Your task to perform on an android device: move a message to another label in the gmail app Image 0: 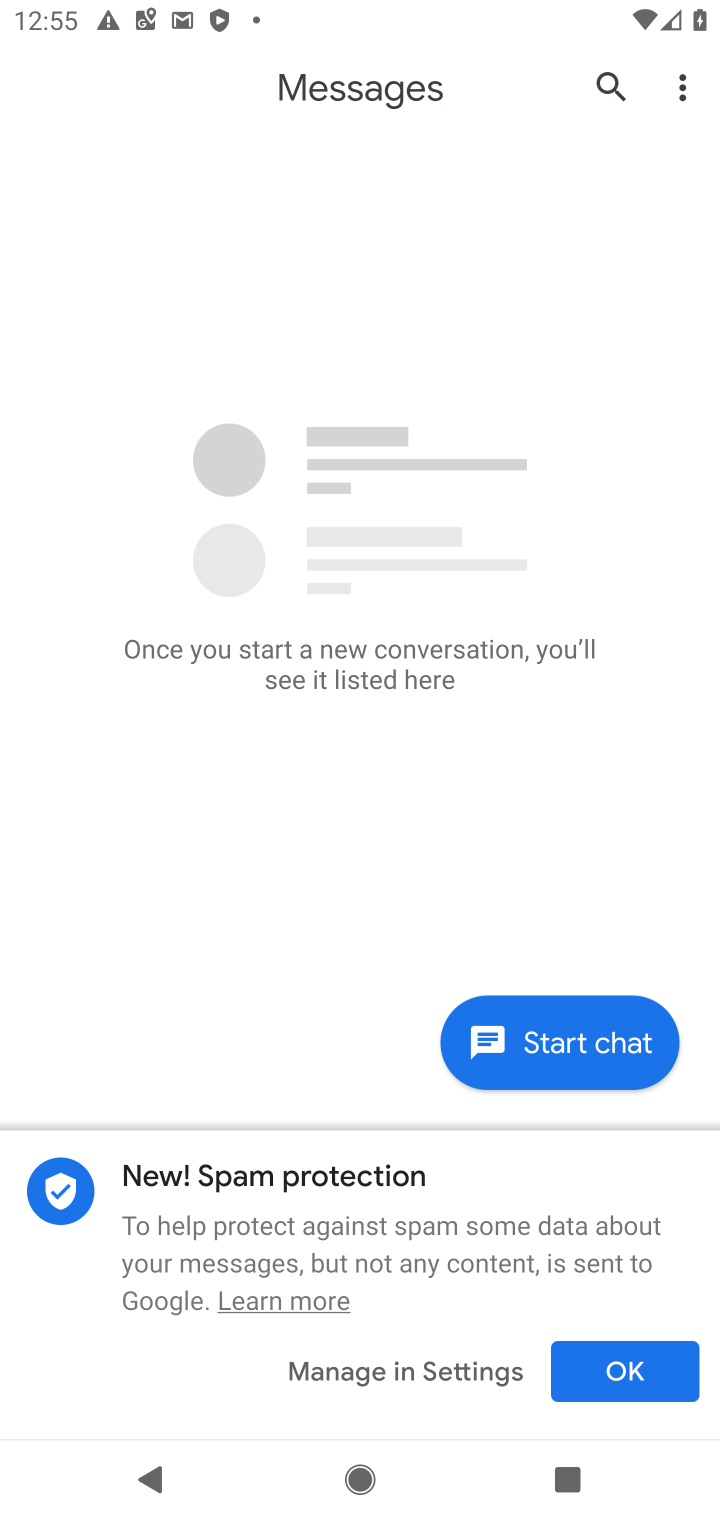
Step 0: press home button
Your task to perform on an android device: move a message to another label in the gmail app Image 1: 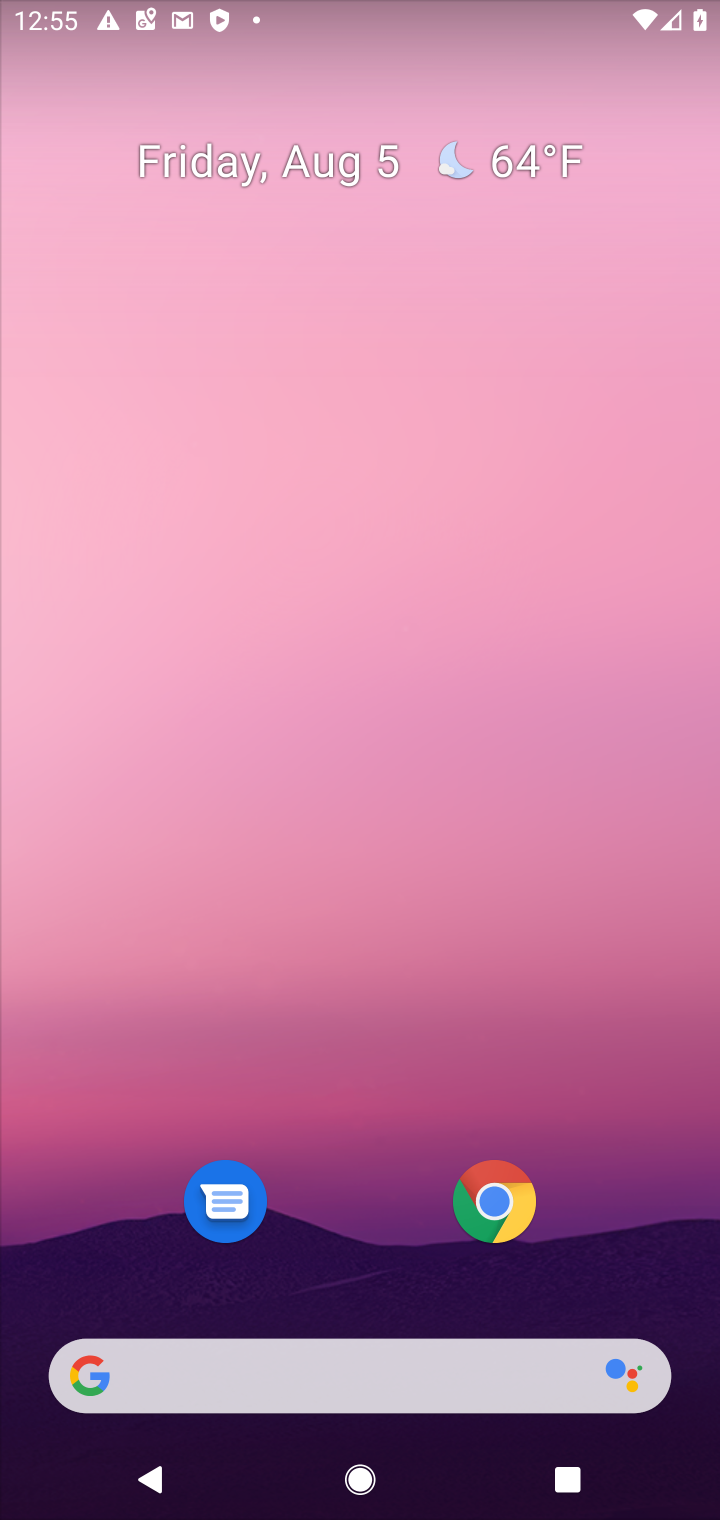
Step 1: drag from (399, 1238) to (373, 558)
Your task to perform on an android device: move a message to another label in the gmail app Image 2: 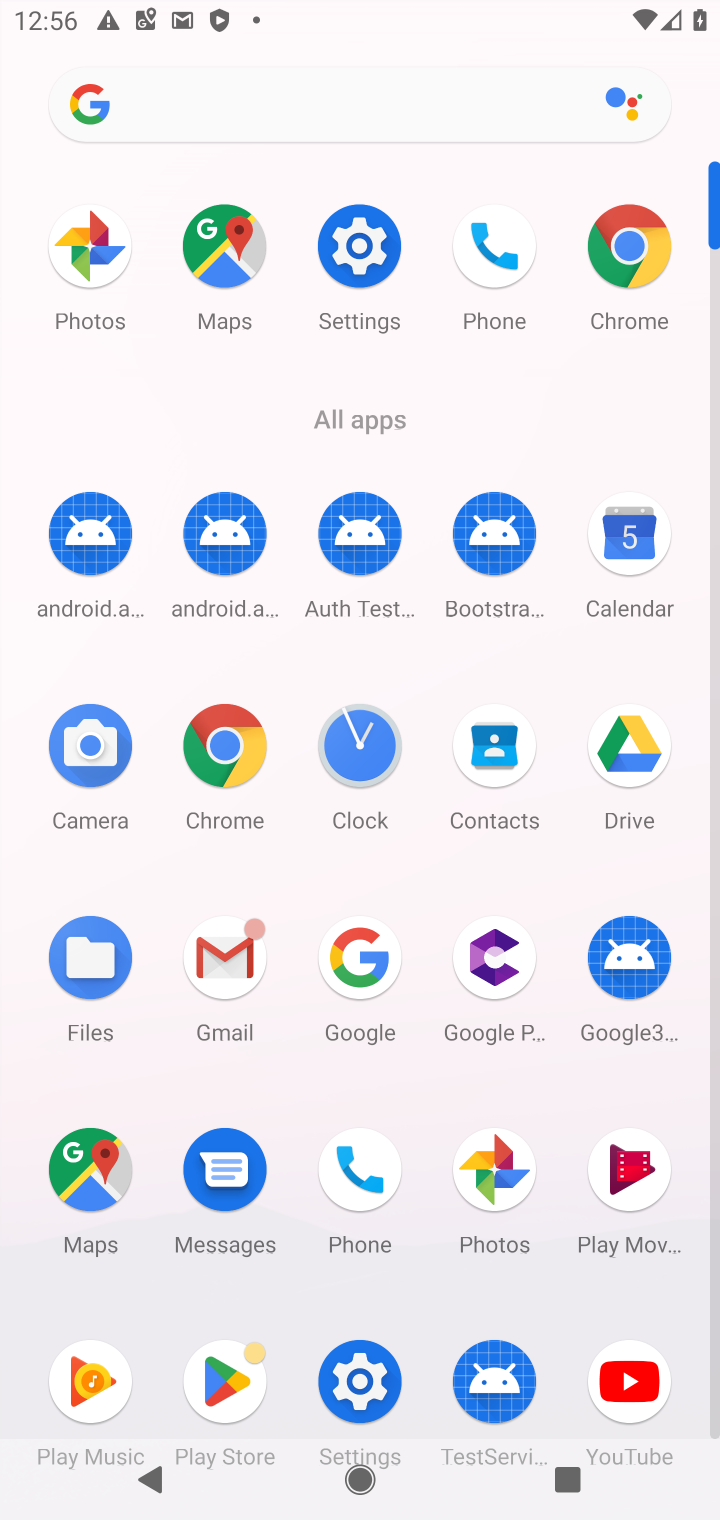
Step 2: click (226, 931)
Your task to perform on an android device: move a message to another label in the gmail app Image 3: 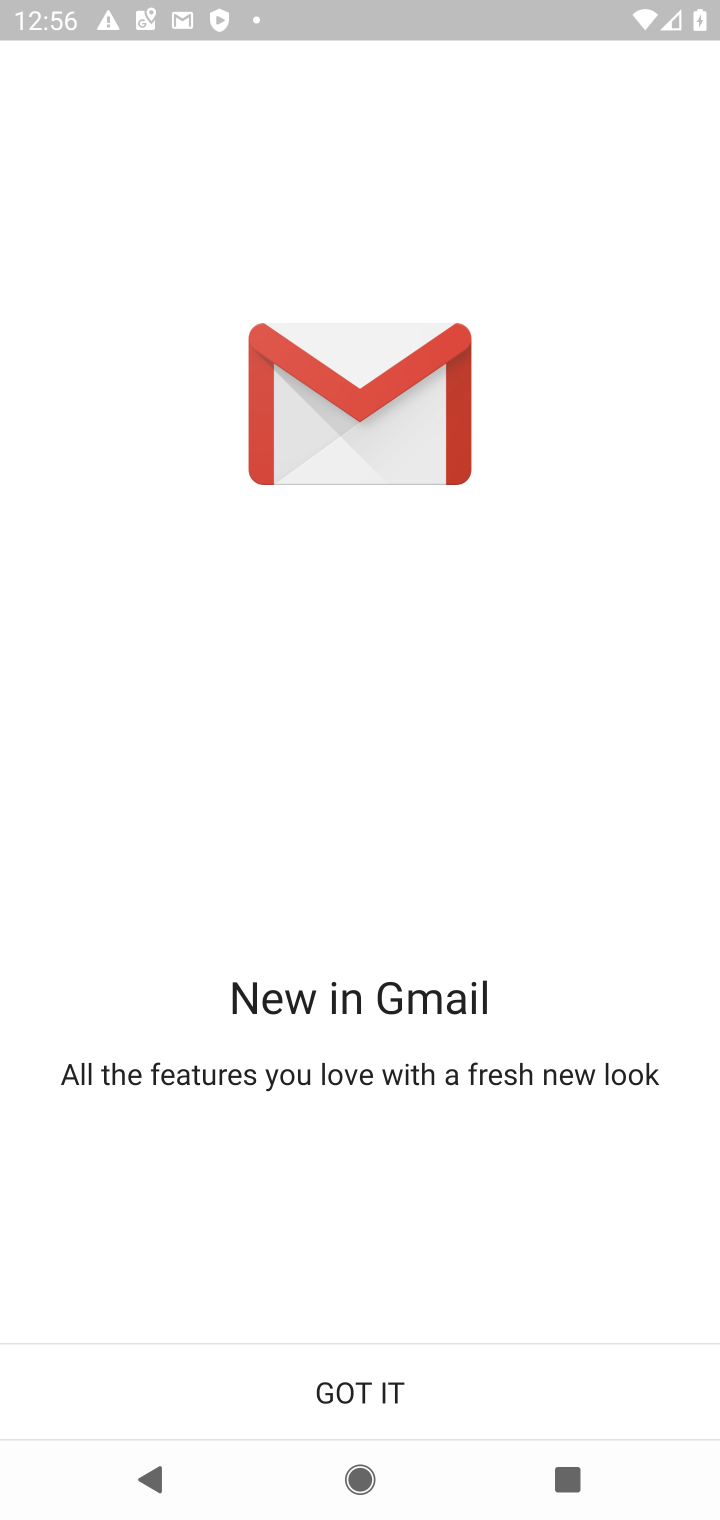
Step 3: click (439, 1374)
Your task to perform on an android device: move a message to another label in the gmail app Image 4: 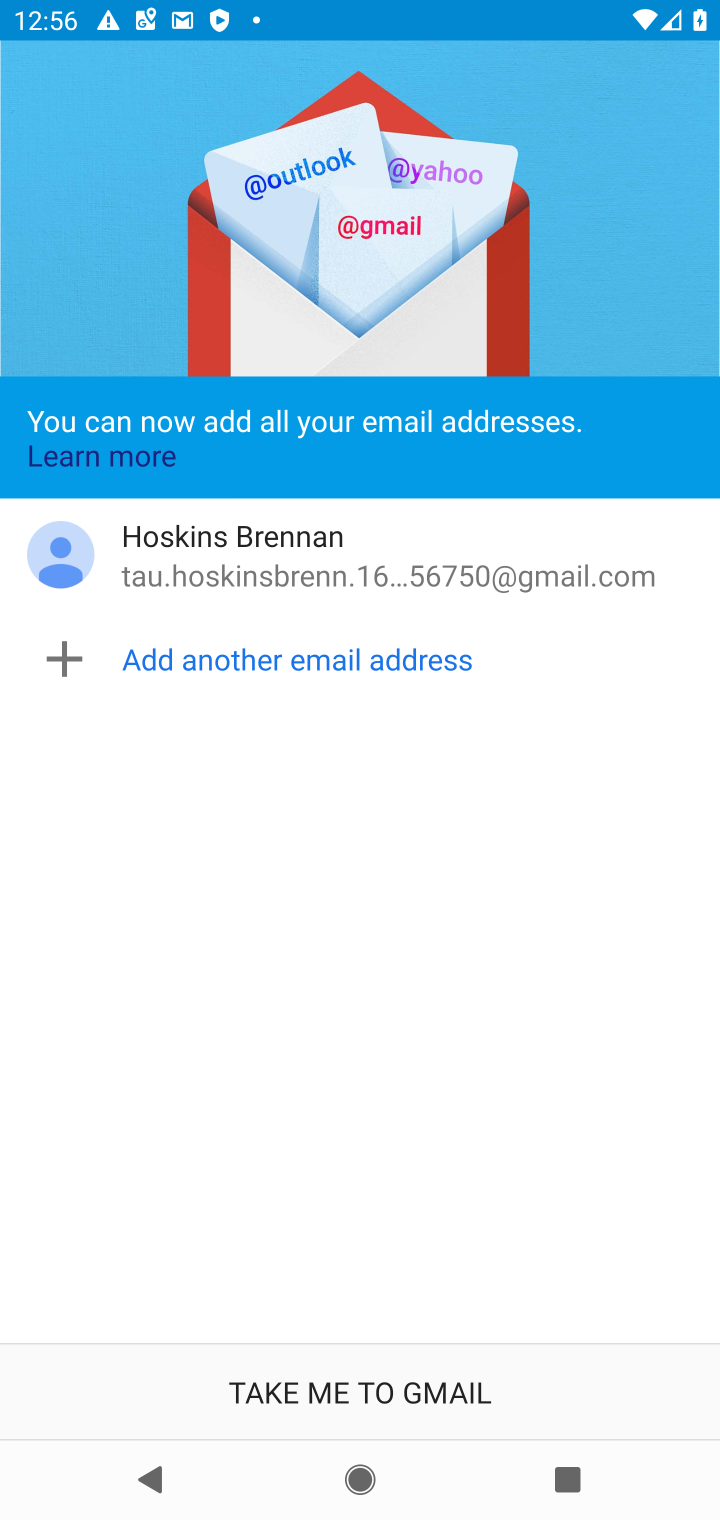
Step 4: click (475, 1383)
Your task to perform on an android device: move a message to another label in the gmail app Image 5: 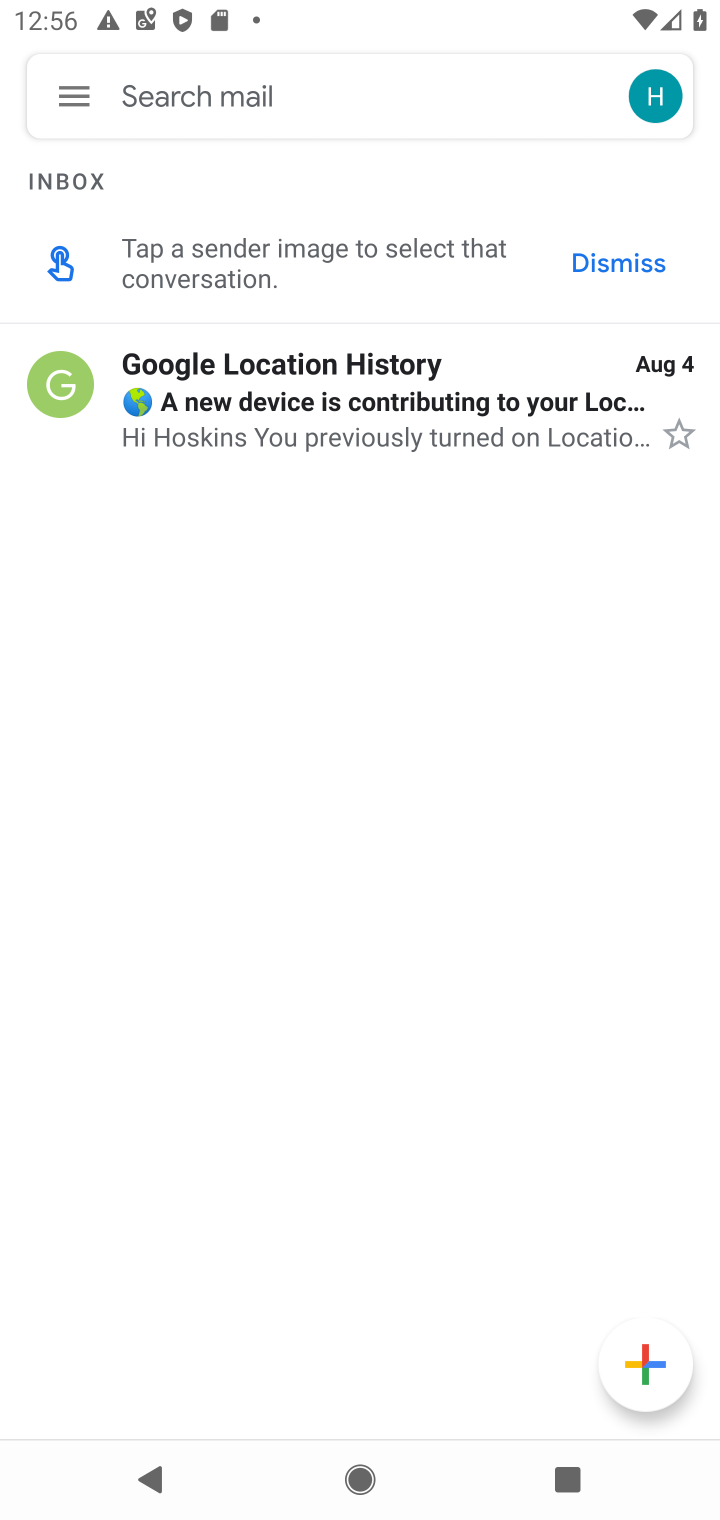
Step 5: click (74, 105)
Your task to perform on an android device: move a message to another label in the gmail app Image 6: 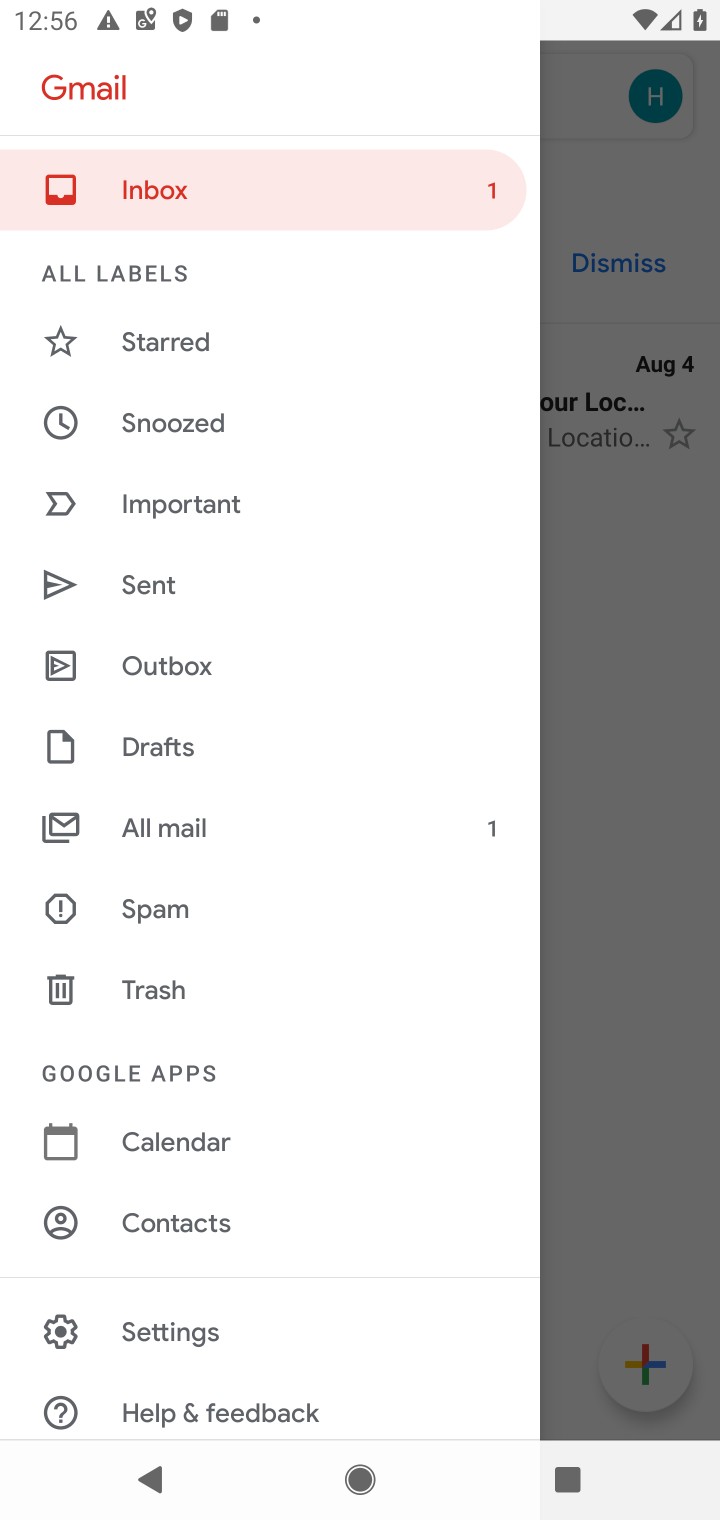
Step 6: click (220, 827)
Your task to perform on an android device: move a message to another label in the gmail app Image 7: 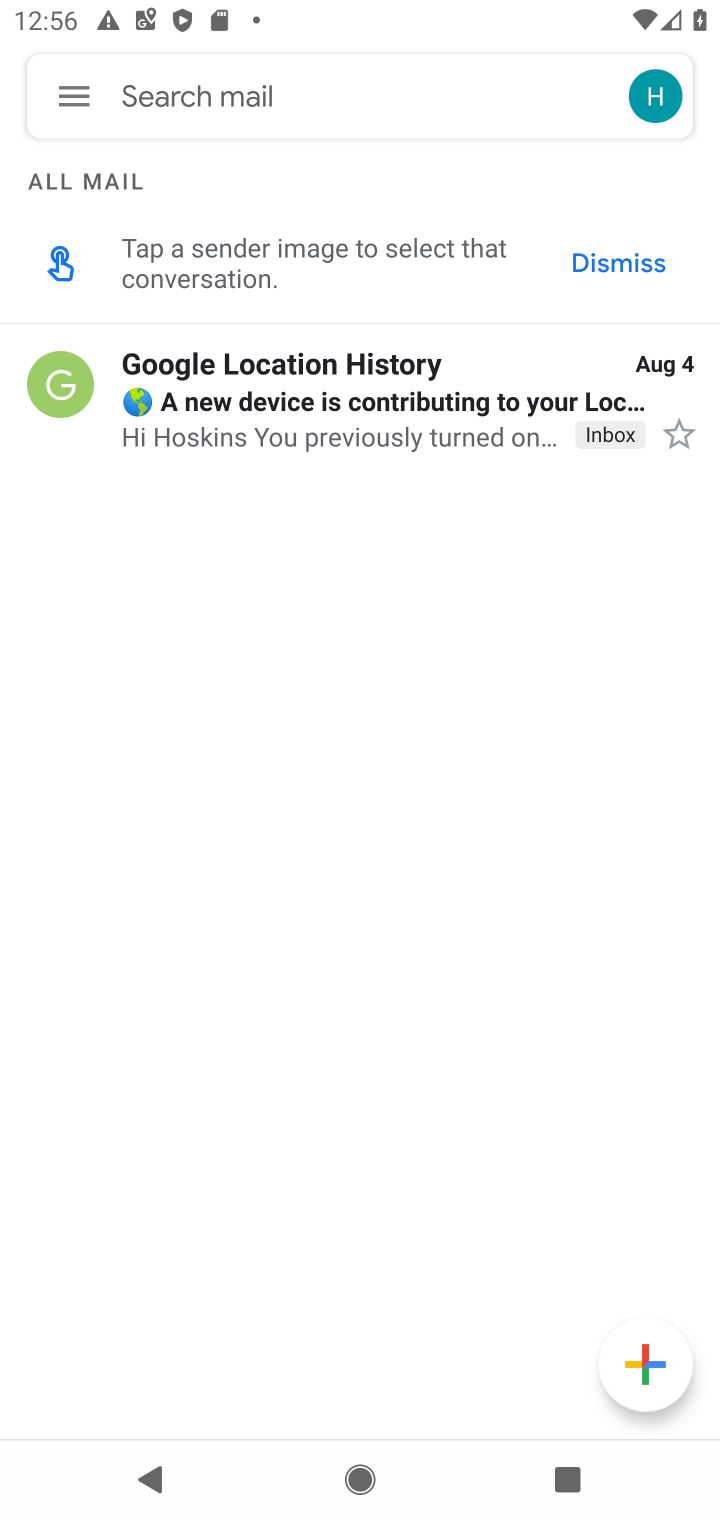
Step 7: click (447, 381)
Your task to perform on an android device: move a message to another label in the gmail app Image 8: 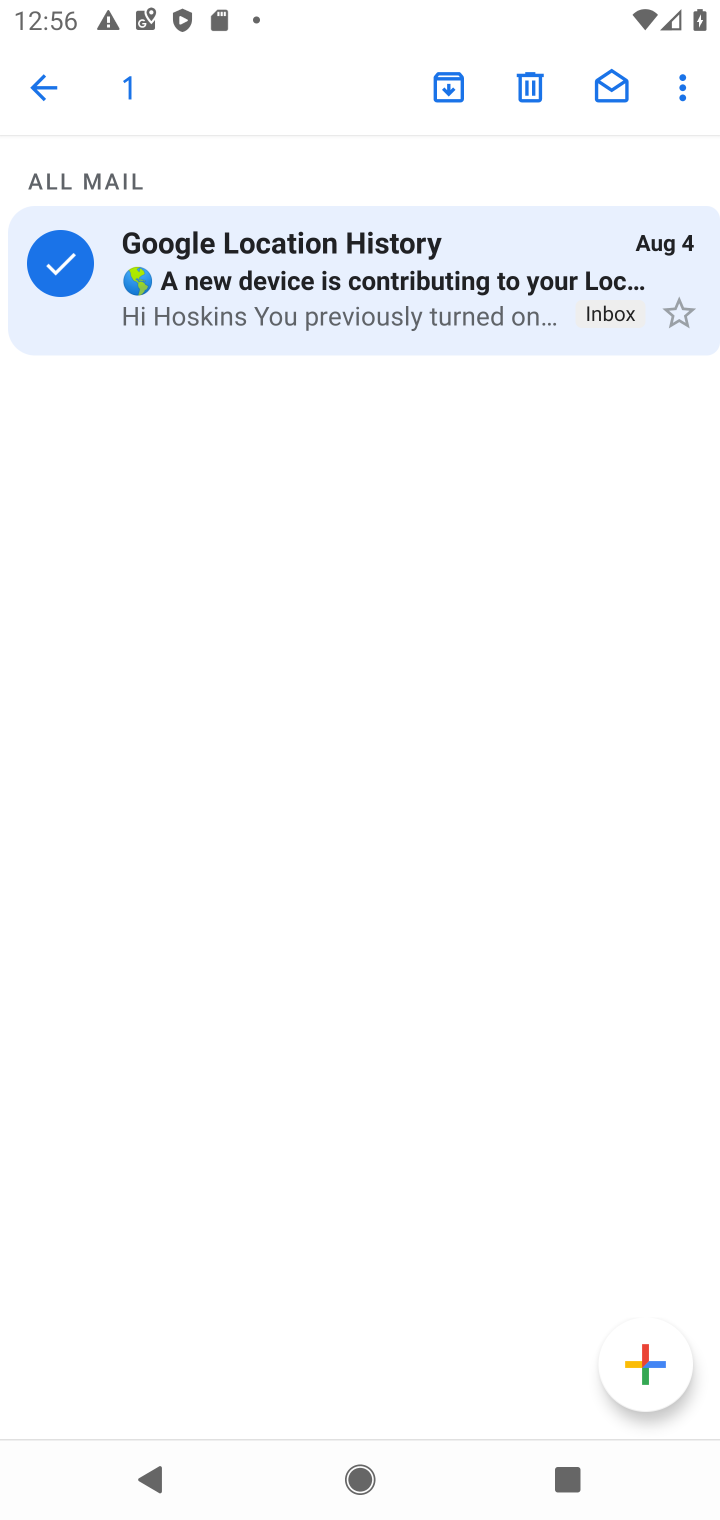
Step 8: click (681, 86)
Your task to perform on an android device: move a message to another label in the gmail app Image 9: 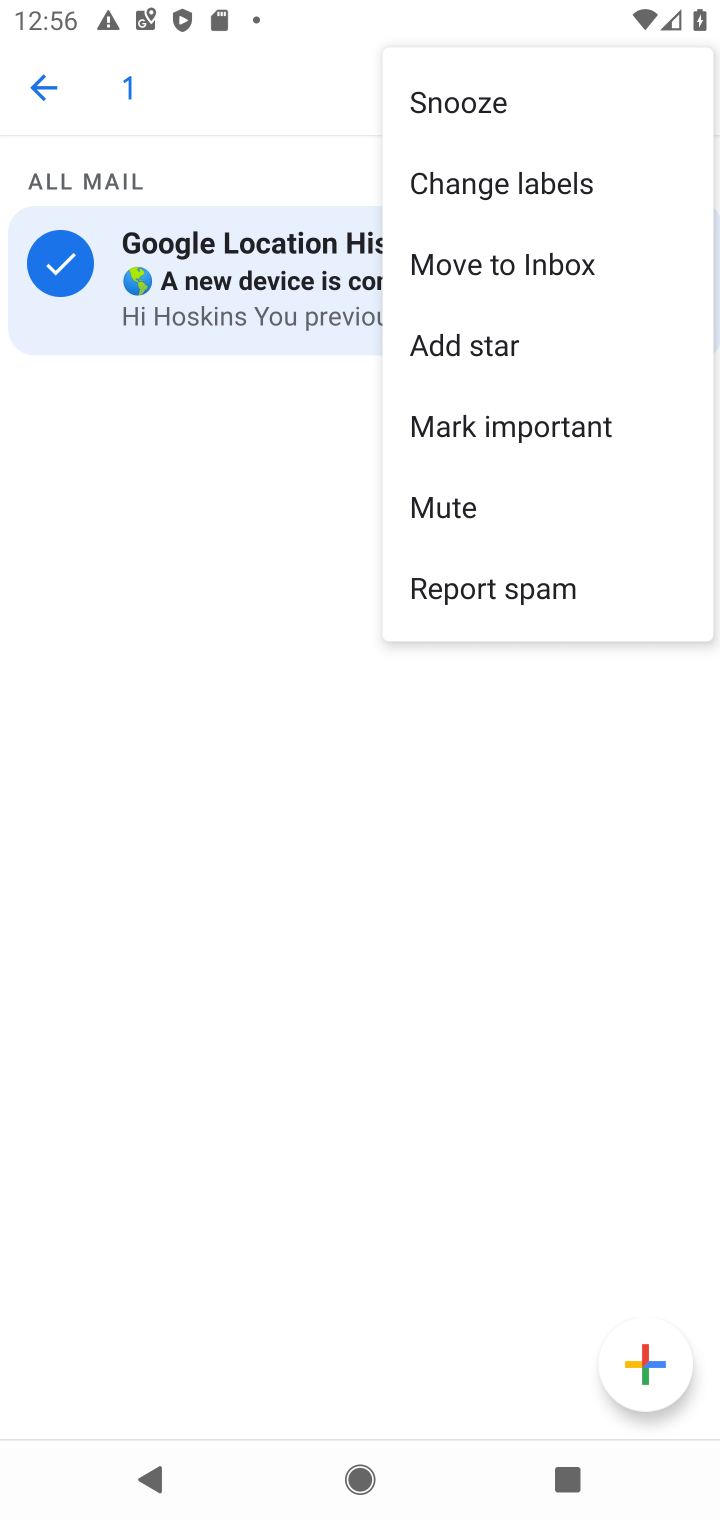
Step 9: click (503, 184)
Your task to perform on an android device: move a message to another label in the gmail app Image 10: 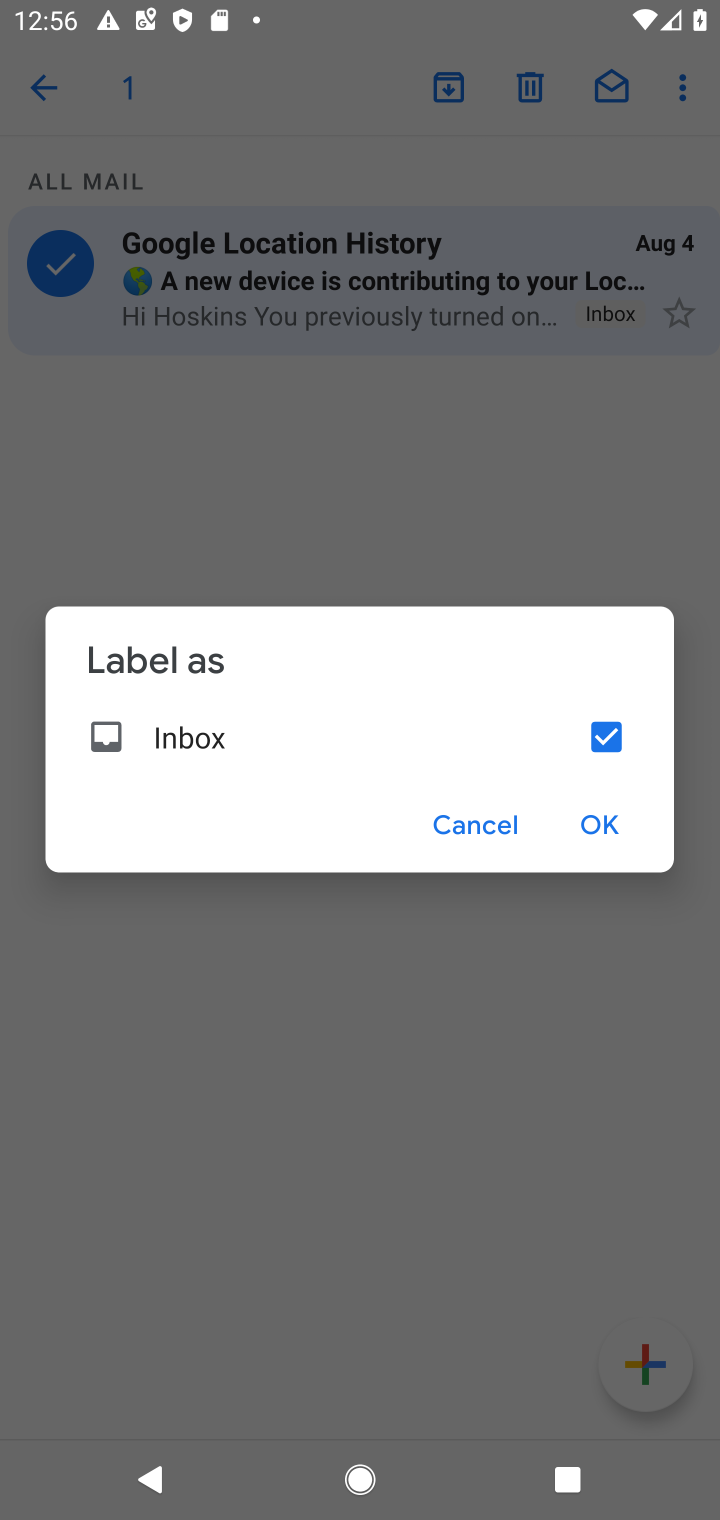
Step 10: click (610, 732)
Your task to perform on an android device: move a message to another label in the gmail app Image 11: 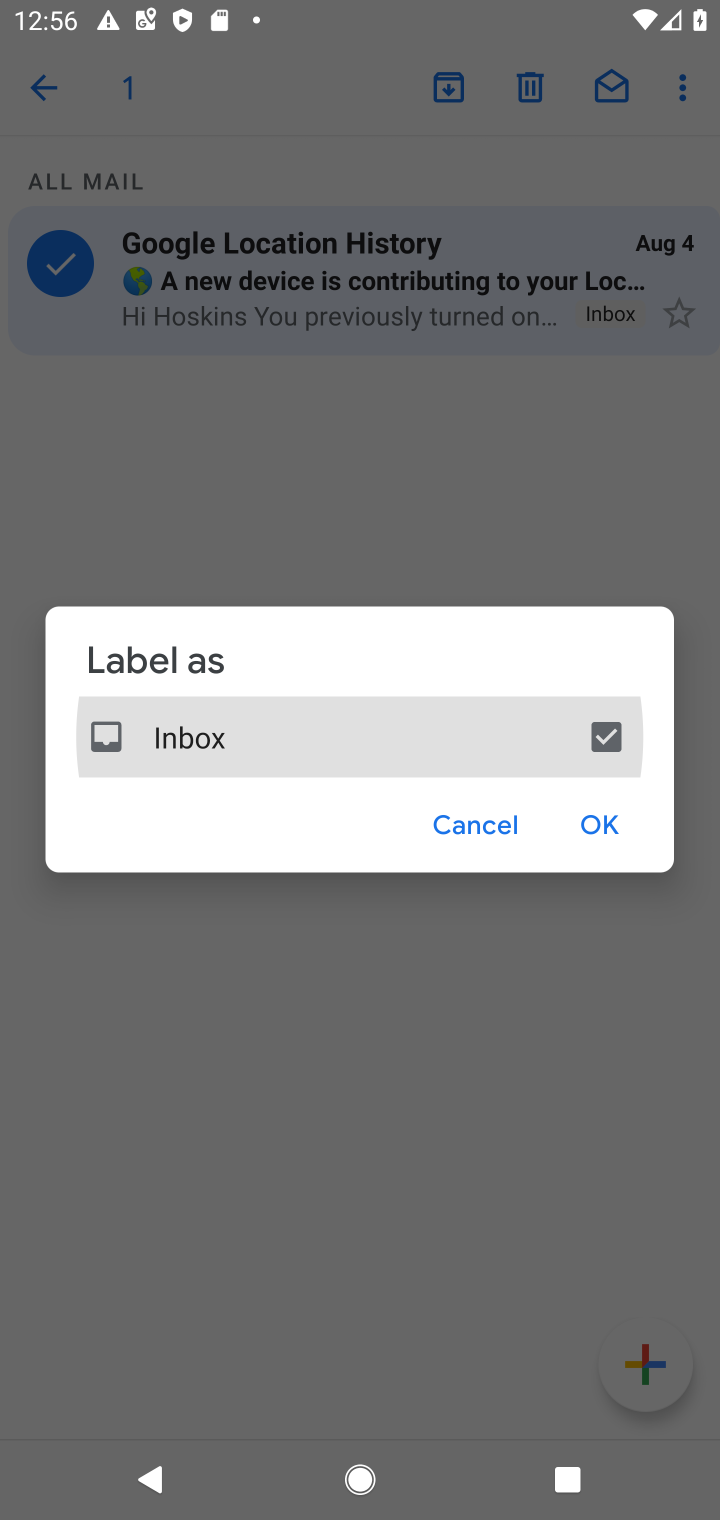
Step 11: click (611, 835)
Your task to perform on an android device: move a message to another label in the gmail app Image 12: 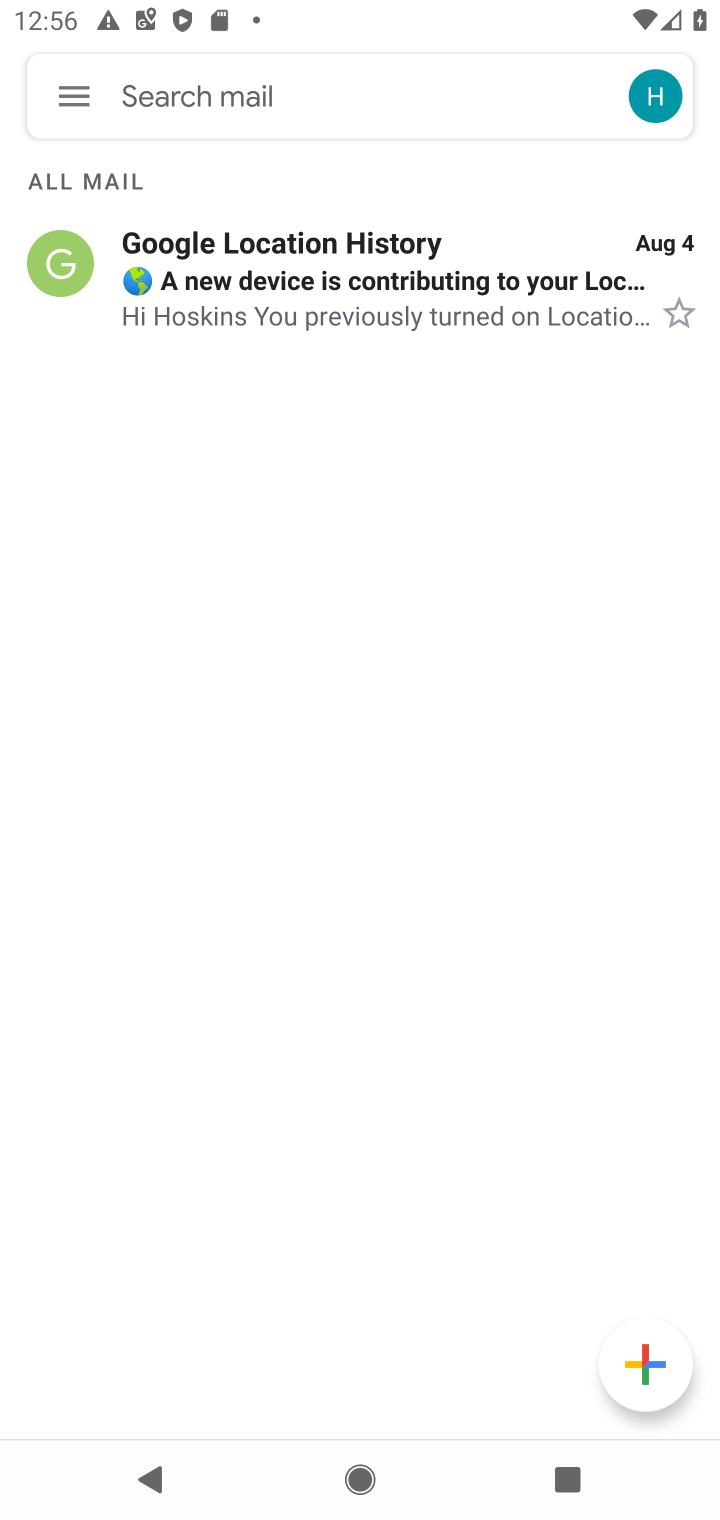
Step 12: task complete